Your task to perform on an android device: change the clock display to show seconds Image 0: 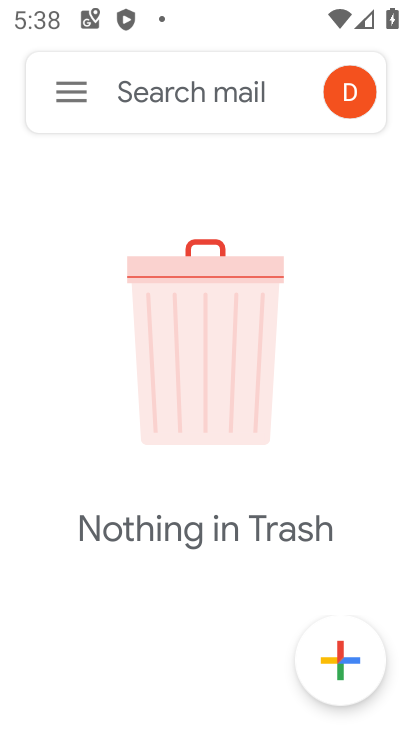
Step 0: press home button
Your task to perform on an android device: change the clock display to show seconds Image 1: 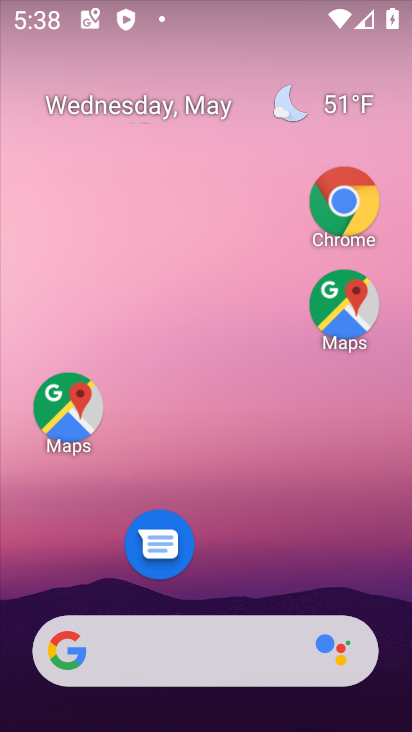
Step 1: drag from (221, 540) to (196, 44)
Your task to perform on an android device: change the clock display to show seconds Image 2: 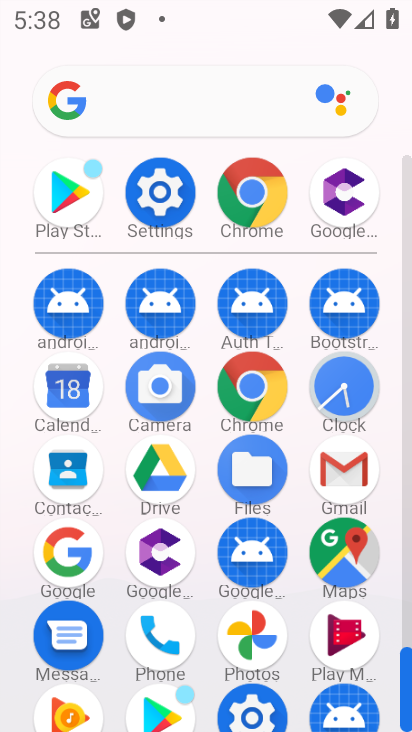
Step 2: click (351, 372)
Your task to perform on an android device: change the clock display to show seconds Image 3: 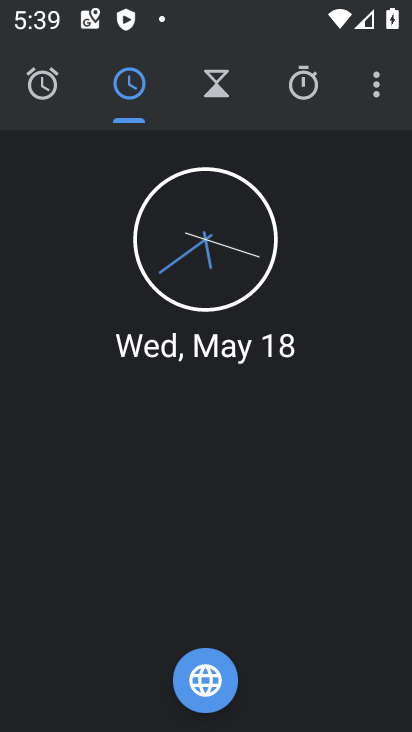
Step 3: press home button
Your task to perform on an android device: change the clock display to show seconds Image 4: 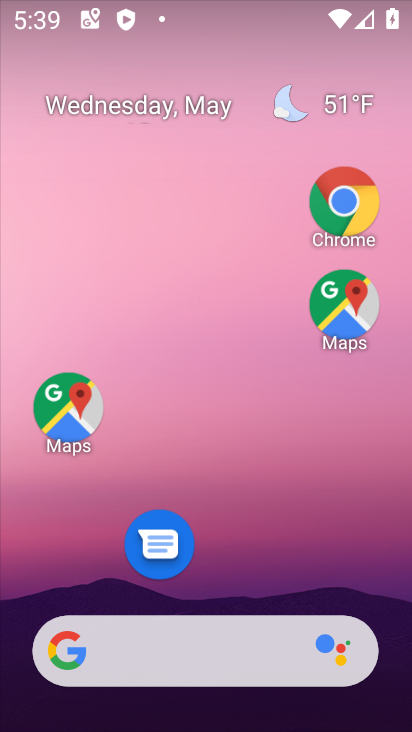
Step 4: drag from (240, 591) to (124, 52)
Your task to perform on an android device: change the clock display to show seconds Image 5: 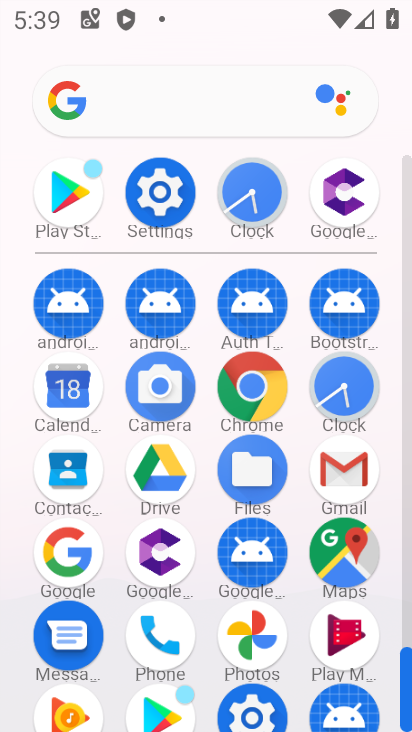
Step 5: click (161, 200)
Your task to perform on an android device: change the clock display to show seconds Image 6: 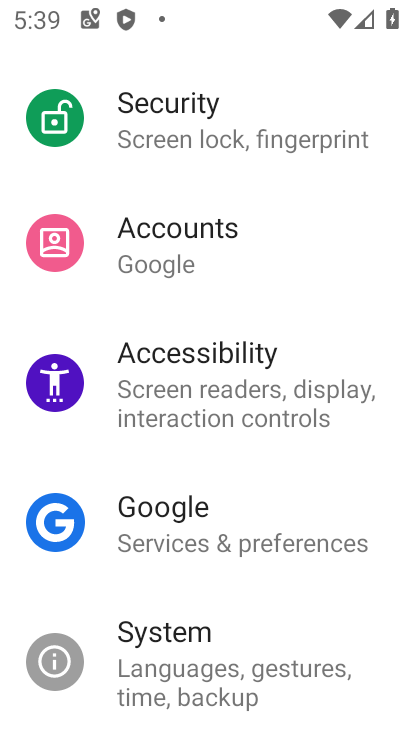
Step 6: drag from (196, 188) to (221, 715)
Your task to perform on an android device: change the clock display to show seconds Image 7: 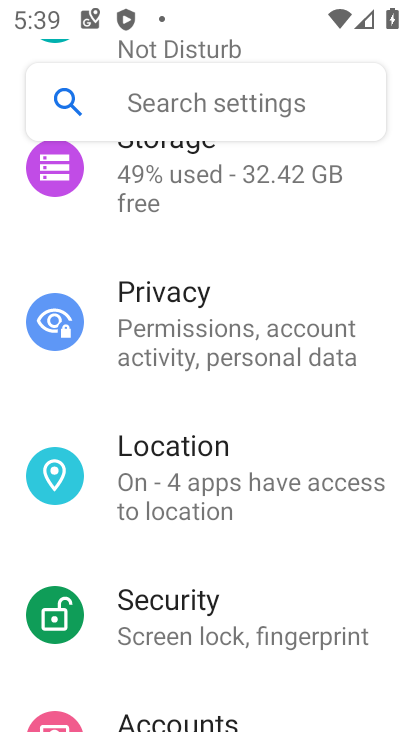
Step 7: press home button
Your task to perform on an android device: change the clock display to show seconds Image 8: 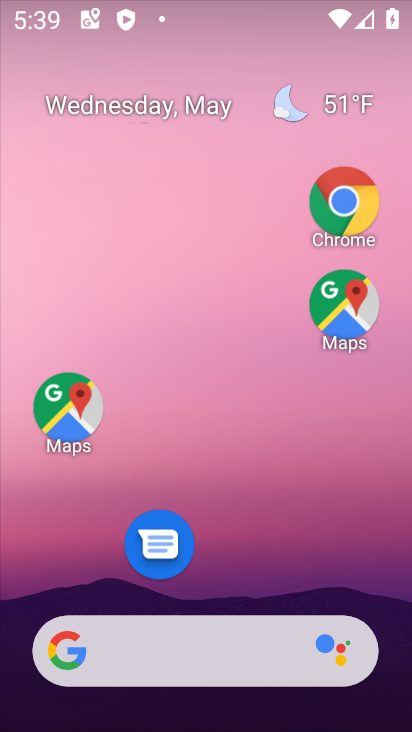
Step 8: drag from (266, 536) to (124, 65)
Your task to perform on an android device: change the clock display to show seconds Image 9: 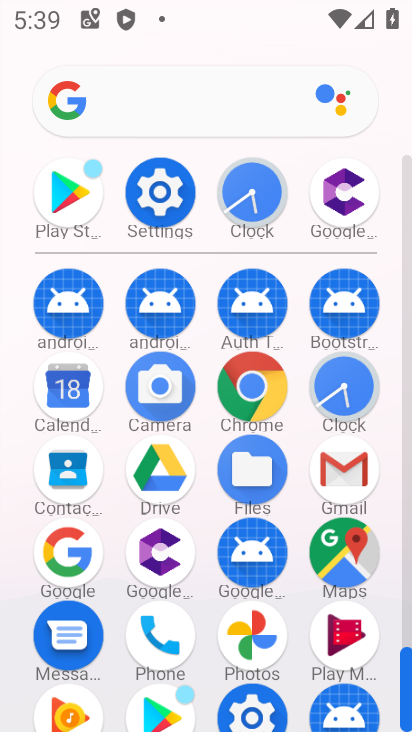
Step 9: click (330, 398)
Your task to perform on an android device: change the clock display to show seconds Image 10: 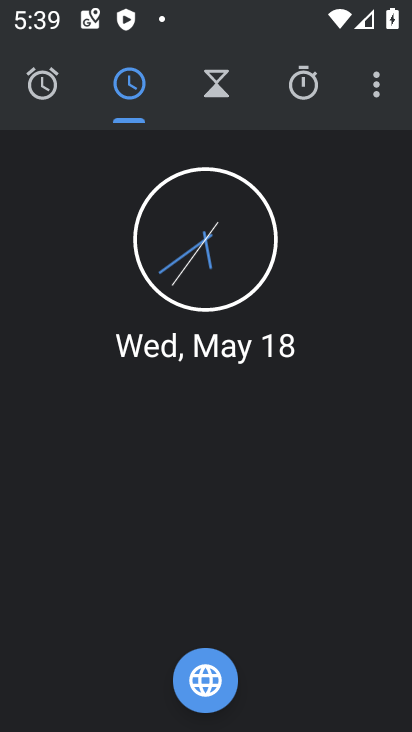
Step 10: click (389, 83)
Your task to perform on an android device: change the clock display to show seconds Image 11: 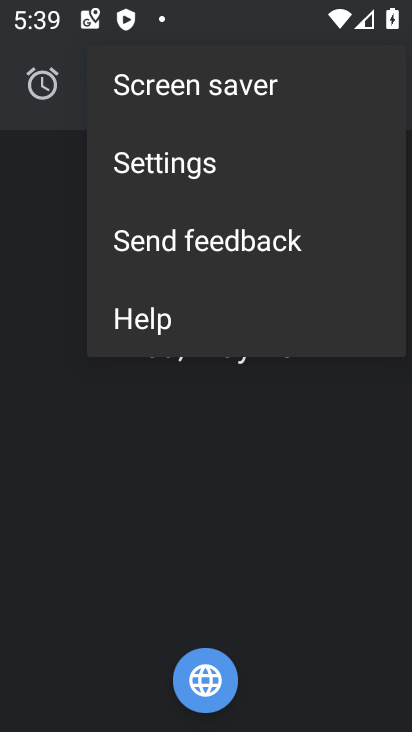
Step 11: click (193, 170)
Your task to perform on an android device: change the clock display to show seconds Image 12: 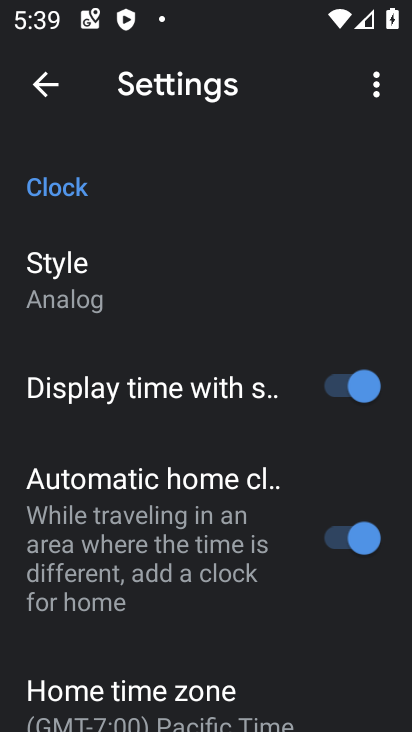
Step 12: task complete